Your task to perform on an android device: turn on showing notifications on the lock screen Image 0: 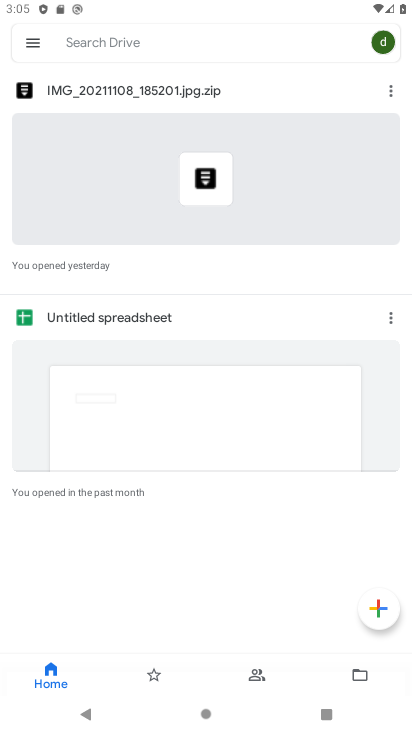
Step 0: press back button
Your task to perform on an android device: turn on showing notifications on the lock screen Image 1: 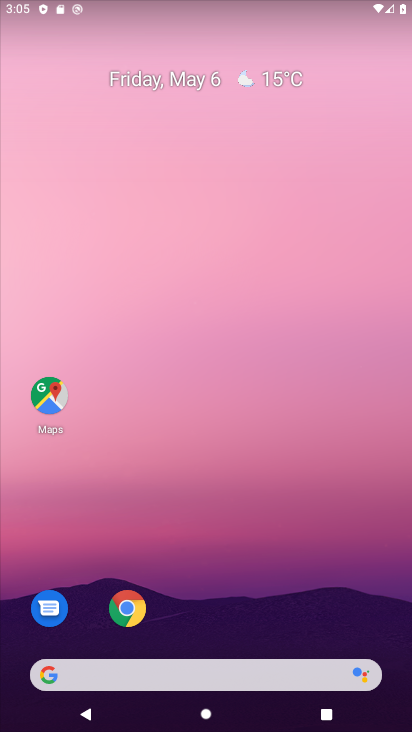
Step 1: drag from (156, 650) to (282, 37)
Your task to perform on an android device: turn on showing notifications on the lock screen Image 2: 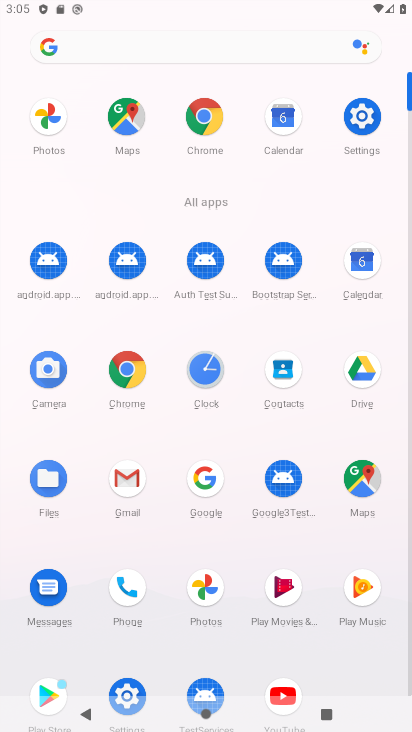
Step 2: drag from (176, 664) to (197, 528)
Your task to perform on an android device: turn on showing notifications on the lock screen Image 3: 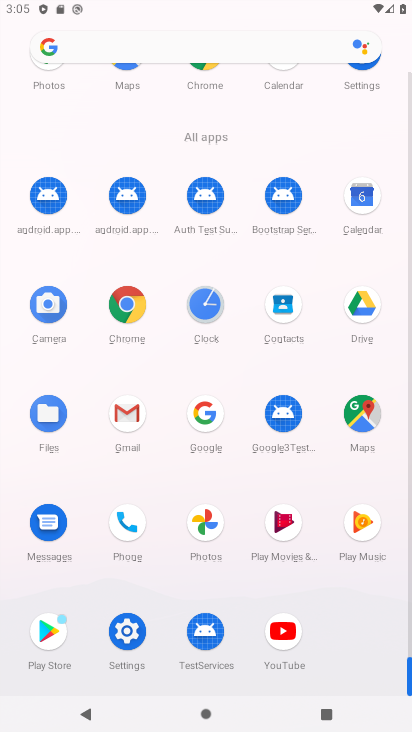
Step 3: click (116, 622)
Your task to perform on an android device: turn on showing notifications on the lock screen Image 4: 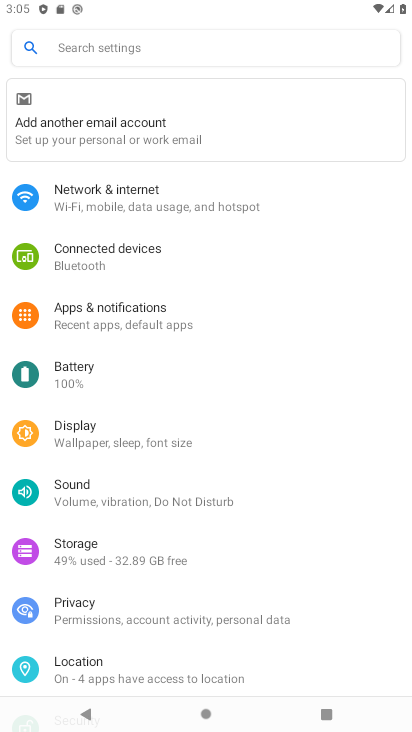
Step 4: click (154, 324)
Your task to perform on an android device: turn on showing notifications on the lock screen Image 5: 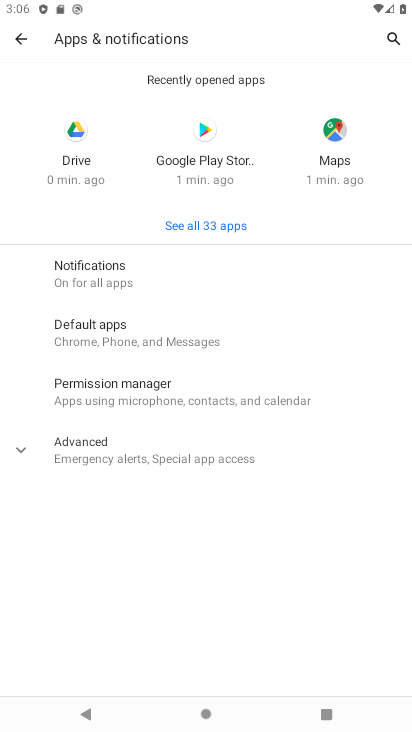
Step 5: click (200, 264)
Your task to perform on an android device: turn on showing notifications on the lock screen Image 6: 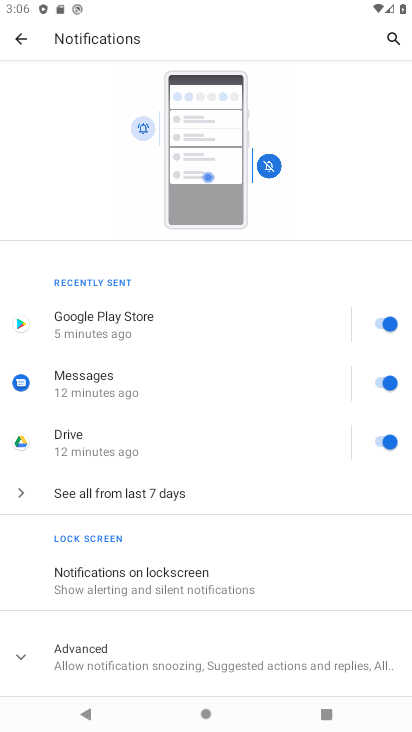
Step 6: drag from (161, 594) to (225, 333)
Your task to perform on an android device: turn on showing notifications on the lock screen Image 7: 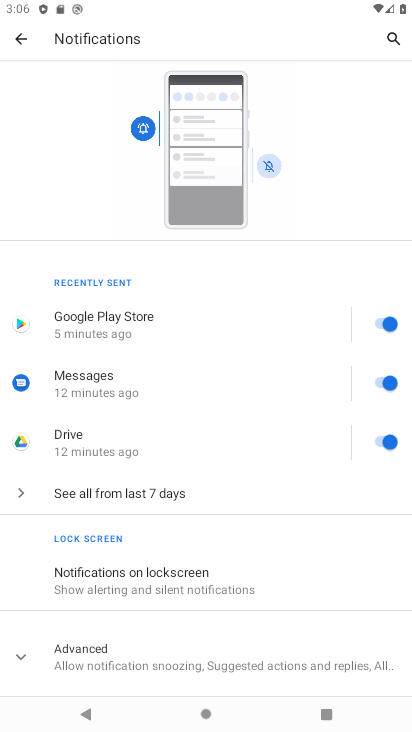
Step 7: click (169, 588)
Your task to perform on an android device: turn on showing notifications on the lock screen Image 8: 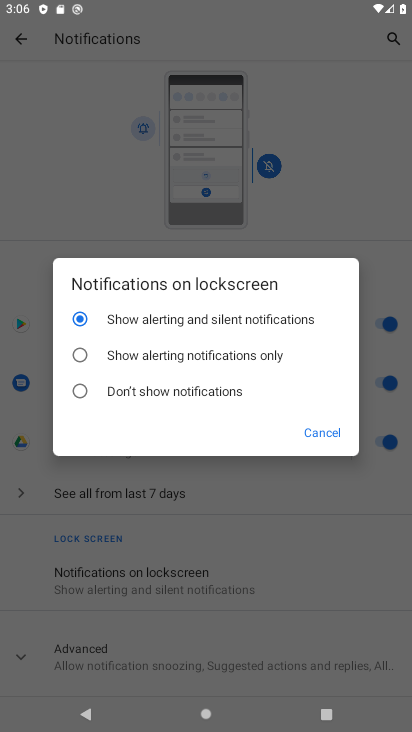
Step 8: task complete